Your task to perform on an android device: turn on wifi Image 0: 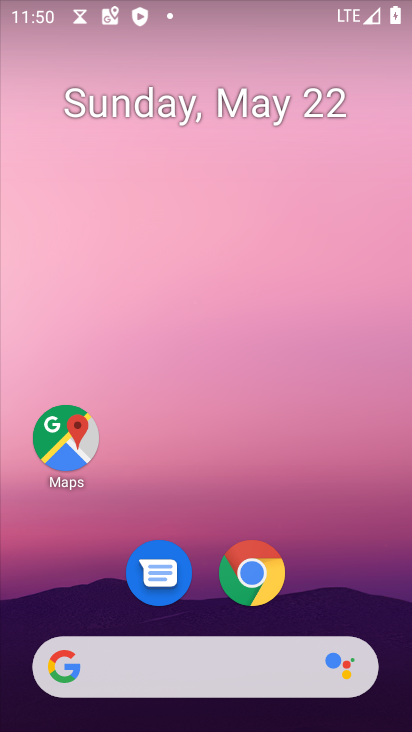
Step 0: press home button
Your task to perform on an android device: turn on wifi Image 1: 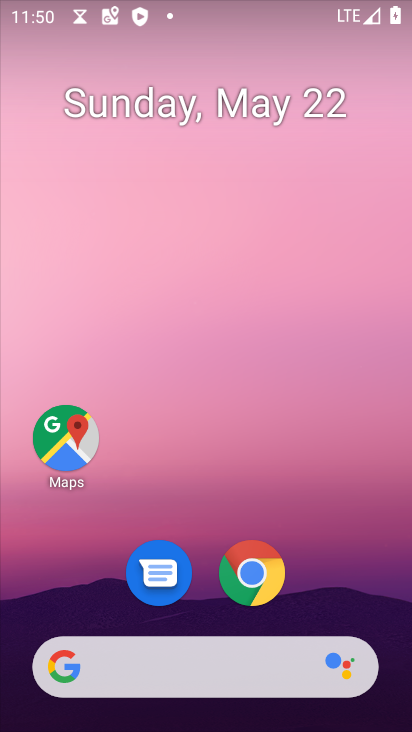
Step 1: drag from (231, 664) to (351, 212)
Your task to perform on an android device: turn on wifi Image 2: 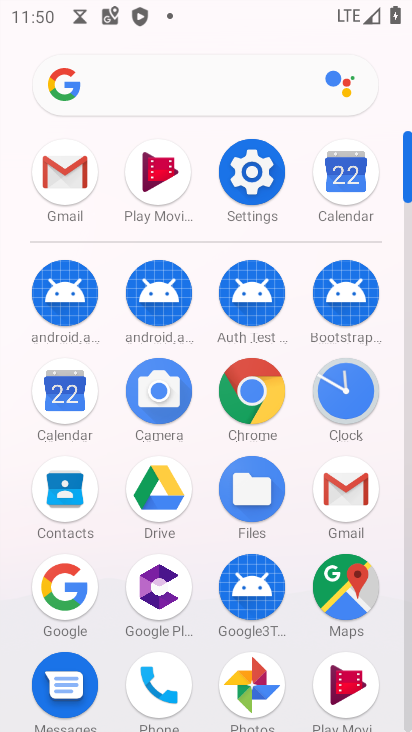
Step 2: click (251, 159)
Your task to perform on an android device: turn on wifi Image 3: 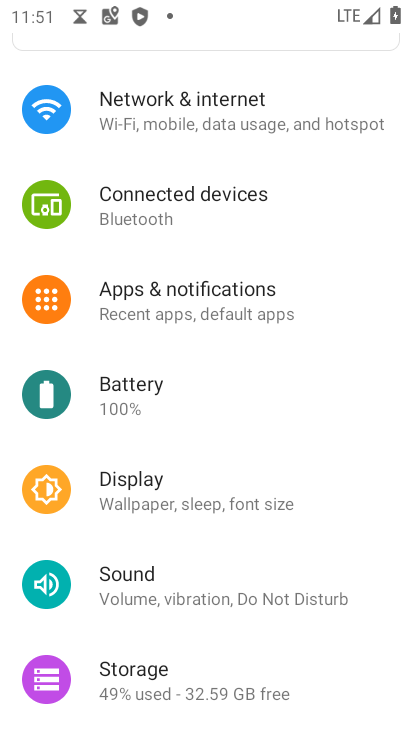
Step 3: click (234, 117)
Your task to perform on an android device: turn on wifi Image 4: 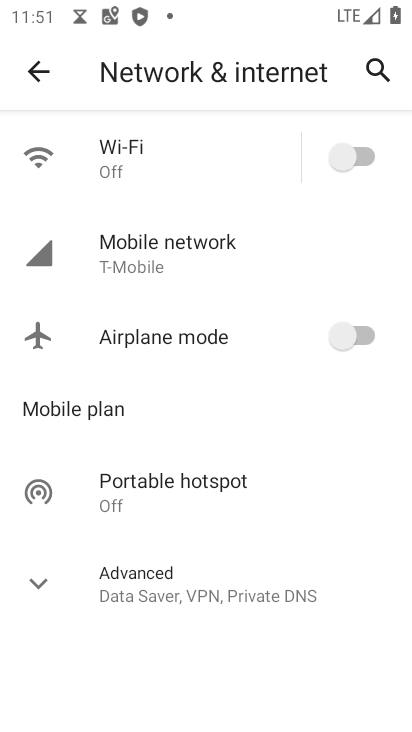
Step 4: click (357, 149)
Your task to perform on an android device: turn on wifi Image 5: 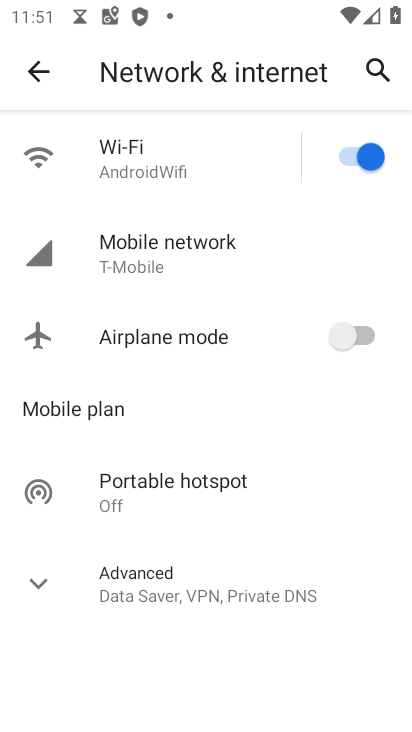
Step 5: task complete